Your task to perform on an android device: Open Yahoo.com Image 0: 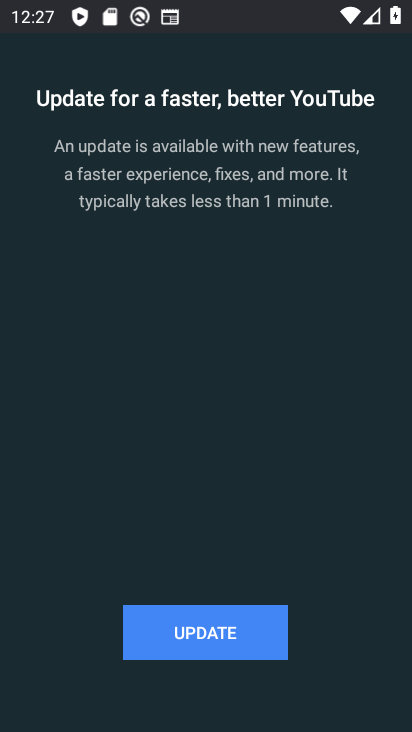
Step 0: press home button
Your task to perform on an android device: Open Yahoo.com Image 1: 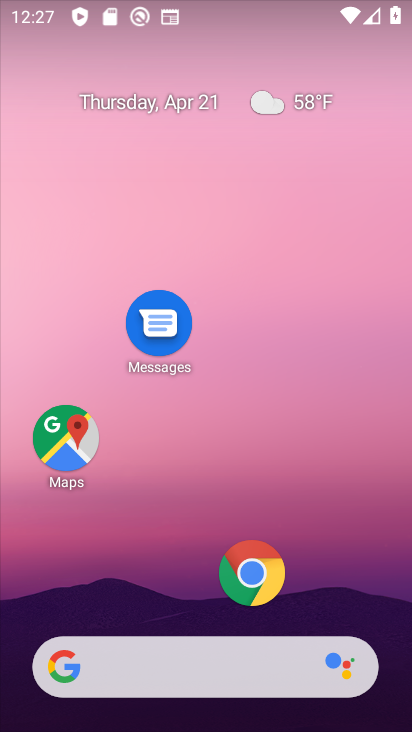
Step 1: click (246, 571)
Your task to perform on an android device: Open Yahoo.com Image 2: 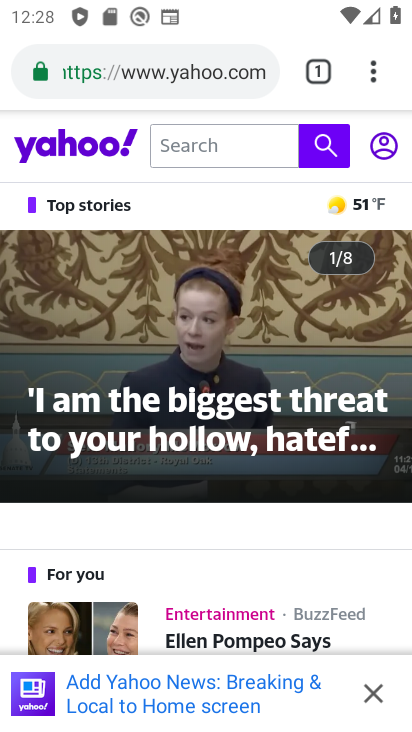
Step 2: task complete